Your task to perform on an android device: Is it going to rain this weekend? Image 0: 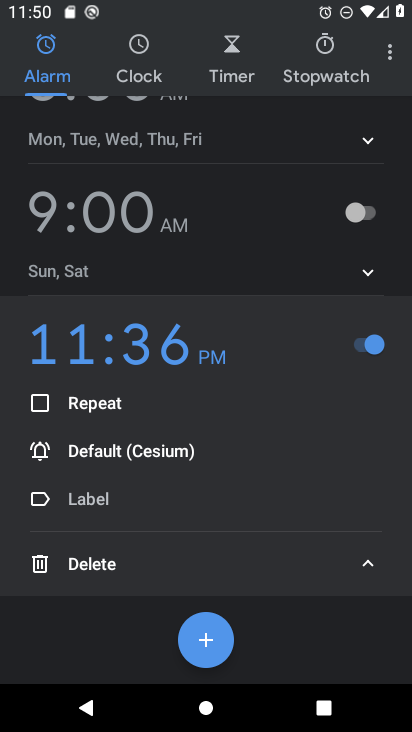
Step 0: press home button
Your task to perform on an android device: Is it going to rain this weekend? Image 1: 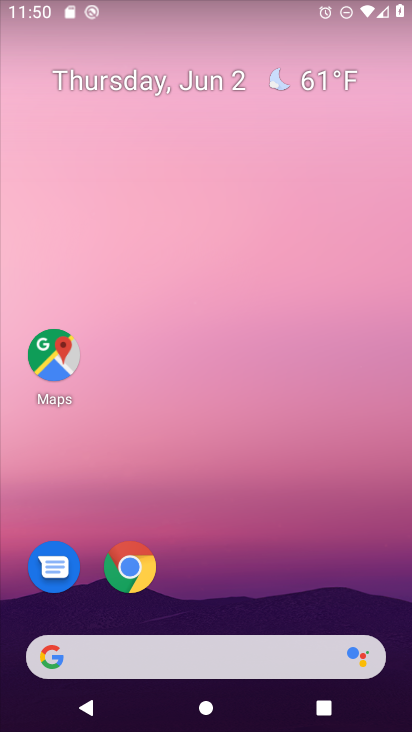
Step 1: click (335, 94)
Your task to perform on an android device: Is it going to rain this weekend? Image 2: 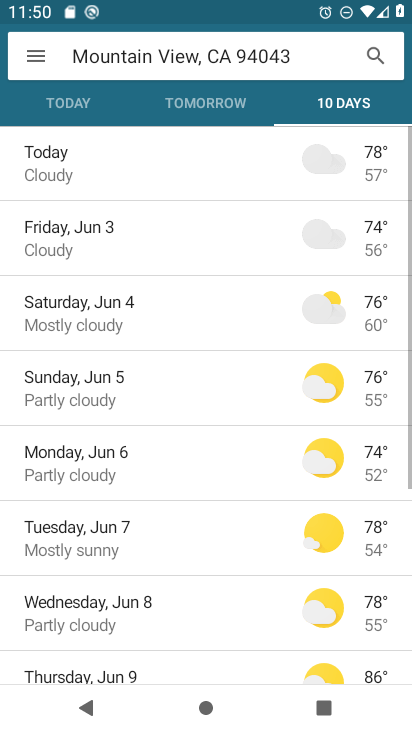
Step 2: click (335, 95)
Your task to perform on an android device: Is it going to rain this weekend? Image 3: 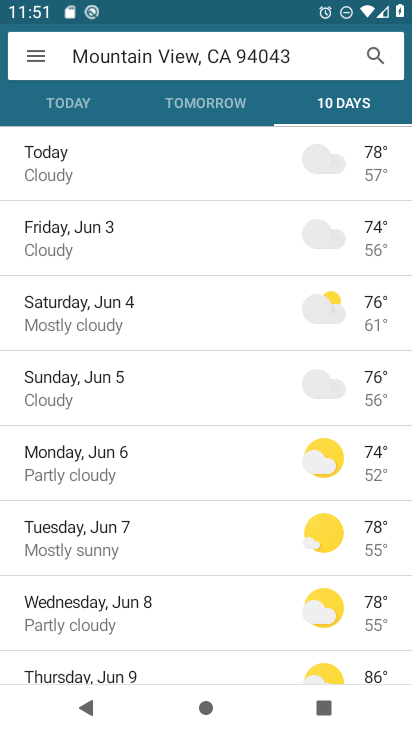
Step 3: task complete